Your task to perform on an android device: Toggle the flashlight Image 0: 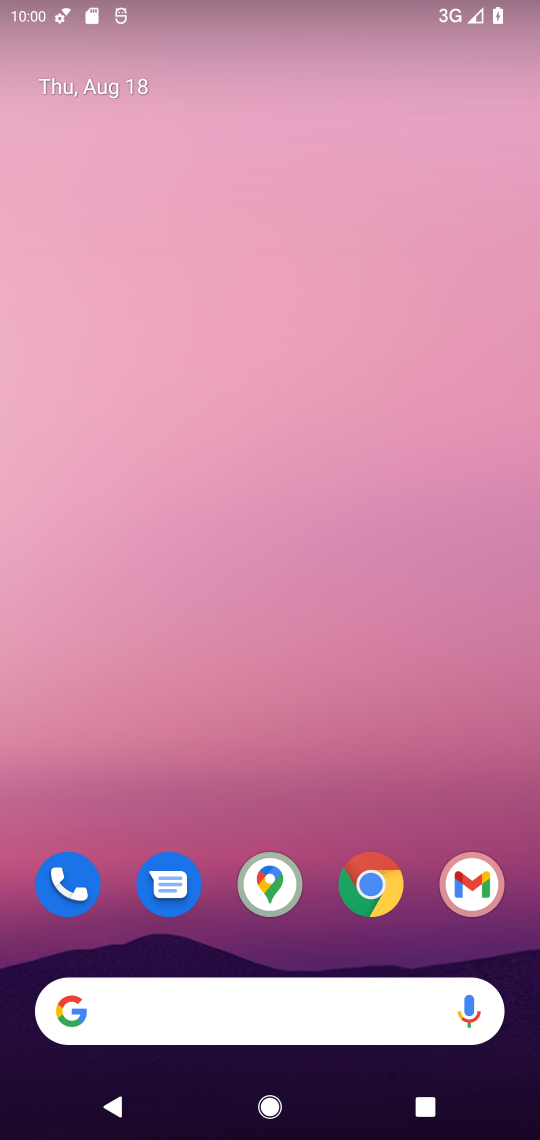
Step 0: drag from (226, 959) to (249, 226)
Your task to perform on an android device: Toggle the flashlight Image 1: 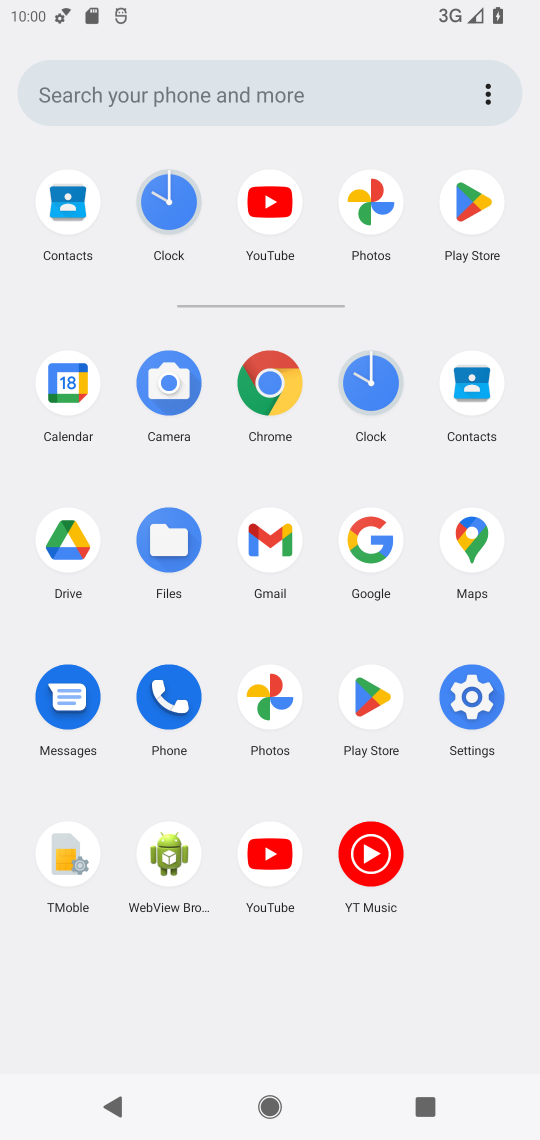
Step 1: click (449, 690)
Your task to perform on an android device: Toggle the flashlight Image 2: 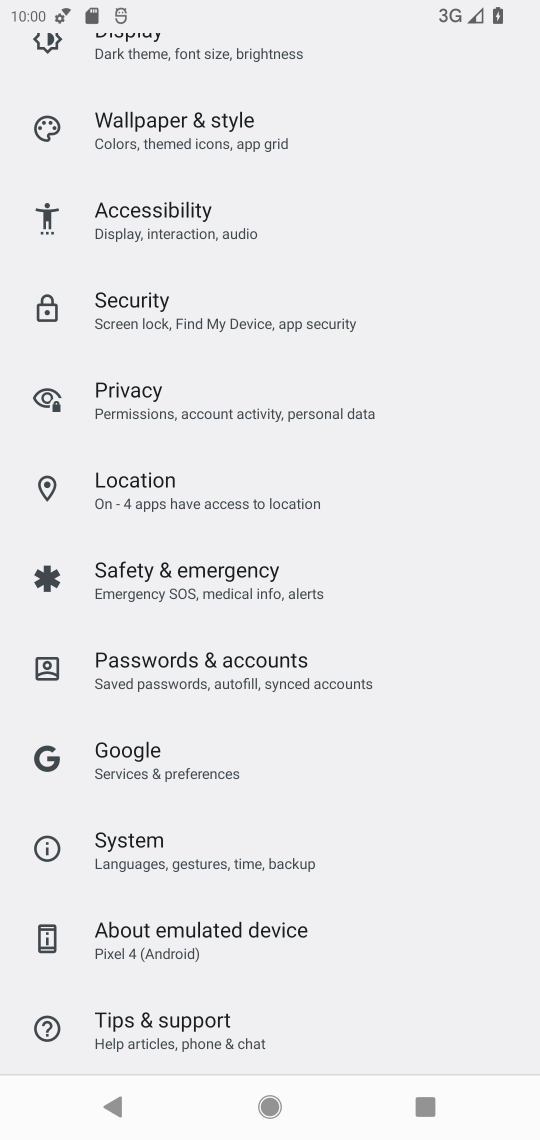
Step 2: task complete